Your task to perform on an android device: set default search engine in the chrome app Image 0: 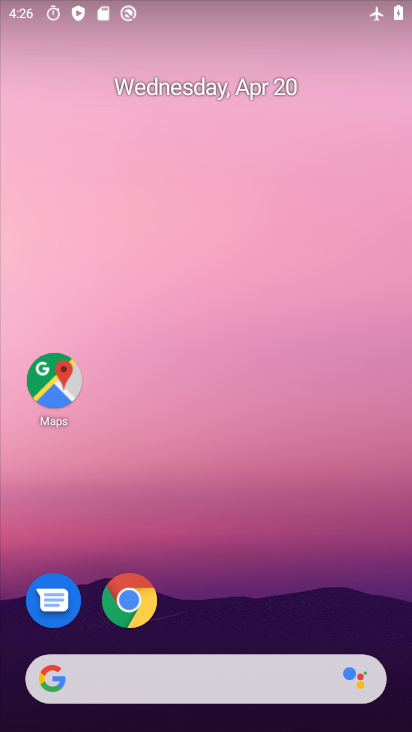
Step 0: drag from (251, 334) to (223, 134)
Your task to perform on an android device: set default search engine in the chrome app Image 1: 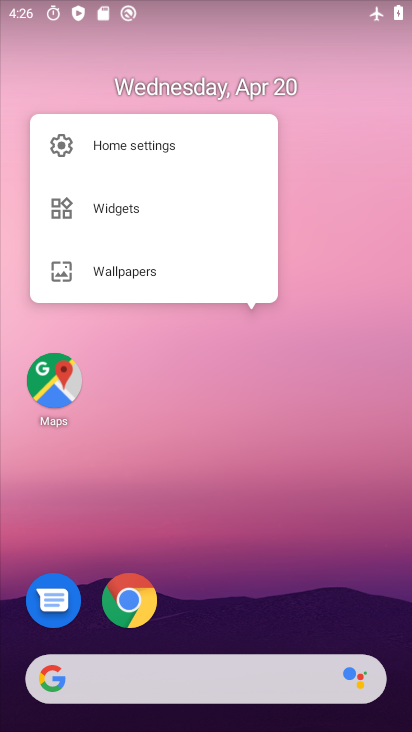
Step 1: drag from (310, 559) to (357, 165)
Your task to perform on an android device: set default search engine in the chrome app Image 2: 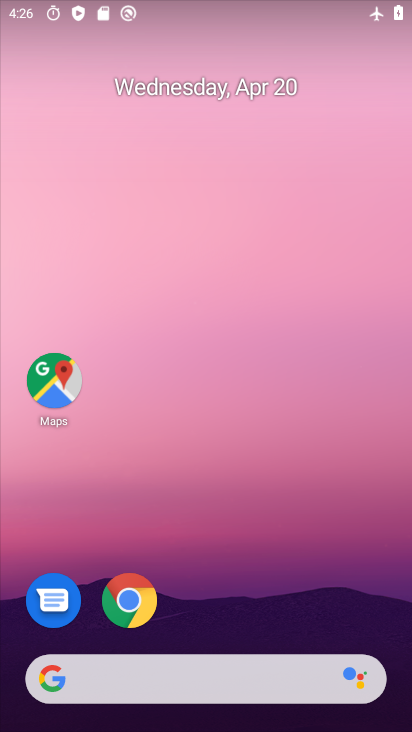
Step 2: drag from (288, 402) to (267, 145)
Your task to perform on an android device: set default search engine in the chrome app Image 3: 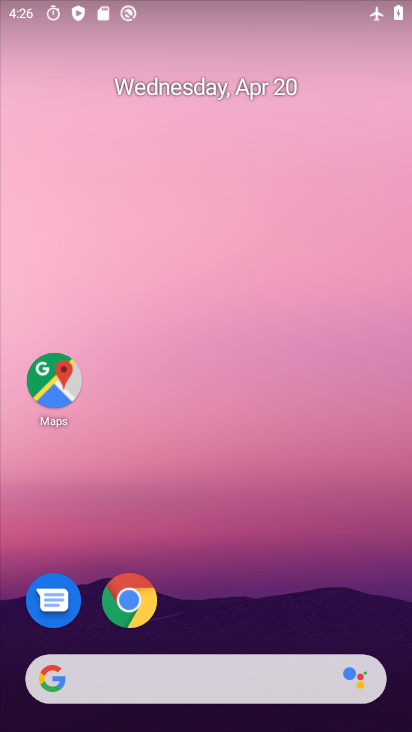
Step 3: drag from (298, 522) to (273, 130)
Your task to perform on an android device: set default search engine in the chrome app Image 4: 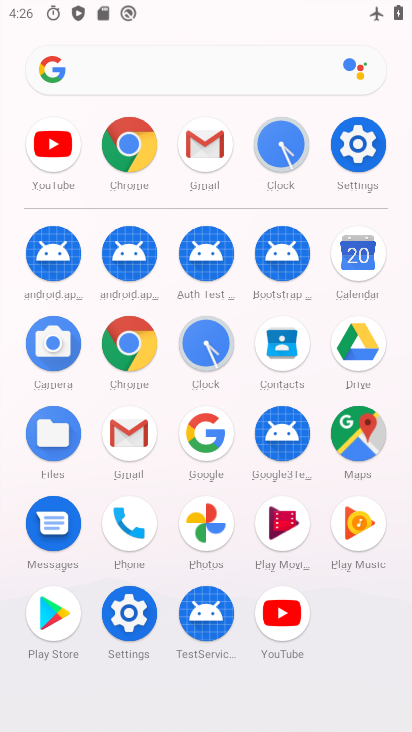
Step 4: click (132, 343)
Your task to perform on an android device: set default search engine in the chrome app Image 5: 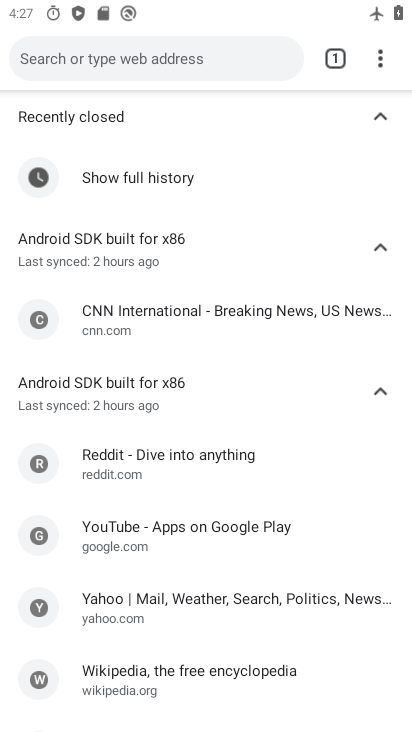
Step 5: drag from (381, 62) to (197, 558)
Your task to perform on an android device: set default search engine in the chrome app Image 6: 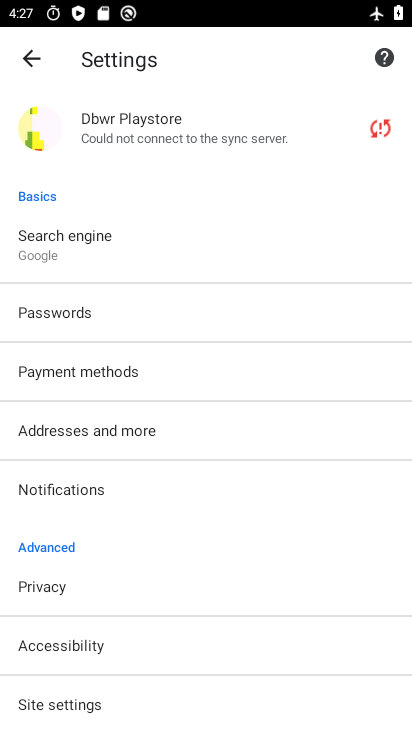
Step 6: click (101, 267)
Your task to perform on an android device: set default search engine in the chrome app Image 7: 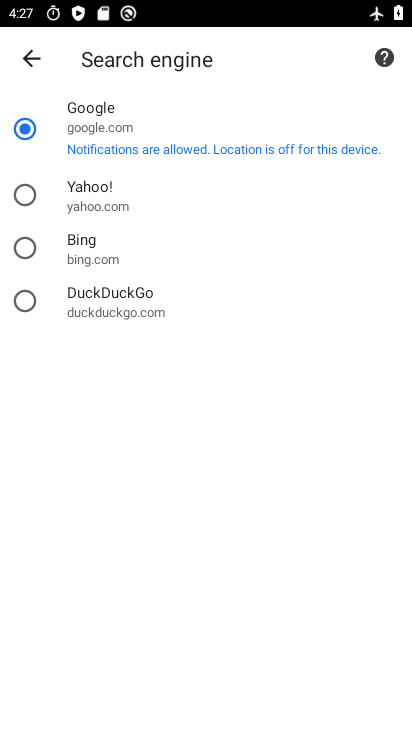
Step 7: task complete